Your task to perform on an android device: open the mobile data screen to see how much data has been used Image 0: 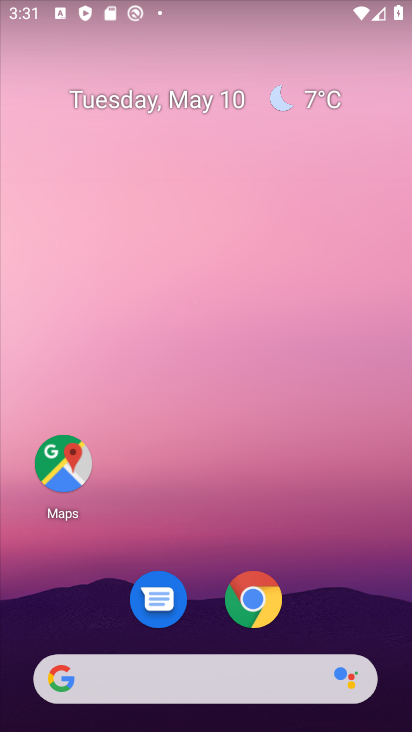
Step 0: drag from (248, 596) to (321, 37)
Your task to perform on an android device: open the mobile data screen to see how much data has been used Image 1: 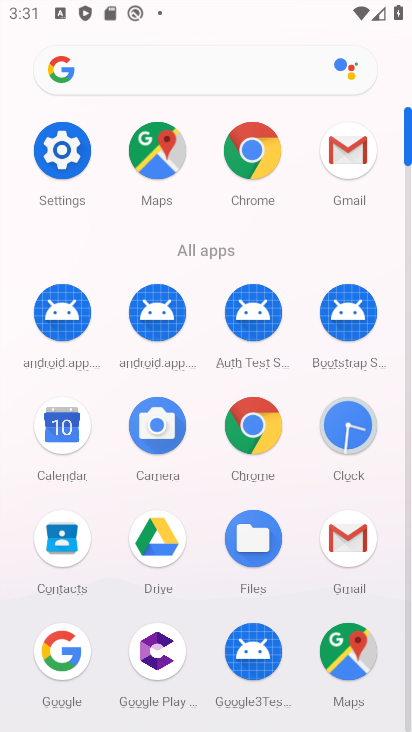
Step 1: click (66, 149)
Your task to perform on an android device: open the mobile data screen to see how much data has been used Image 2: 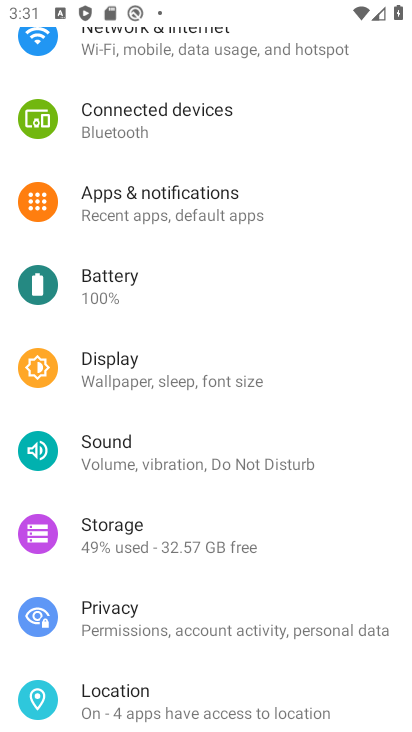
Step 2: drag from (164, 166) to (174, 618)
Your task to perform on an android device: open the mobile data screen to see how much data has been used Image 3: 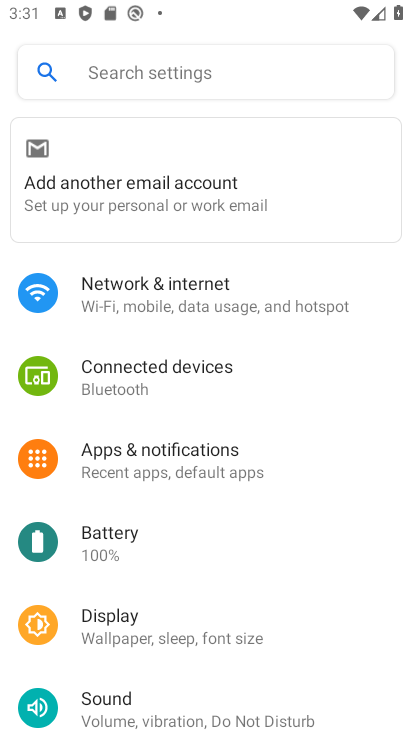
Step 3: click (204, 303)
Your task to perform on an android device: open the mobile data screen to see how much data has been used Image 4: 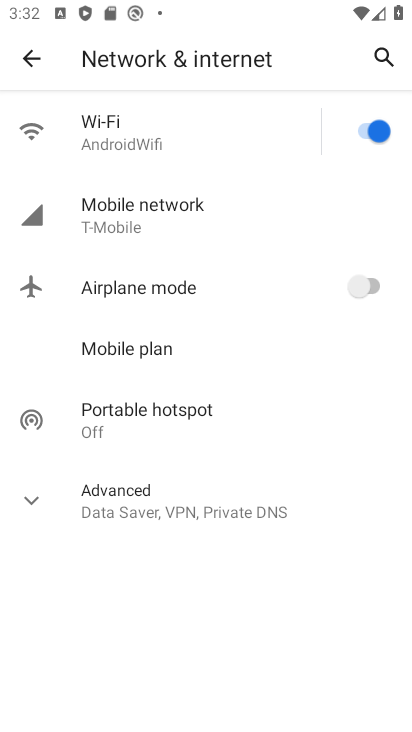
Step 4: click (179, 217)
Your task to perform on an android device: open the mobile data screen to see how much data has been used Image 5: 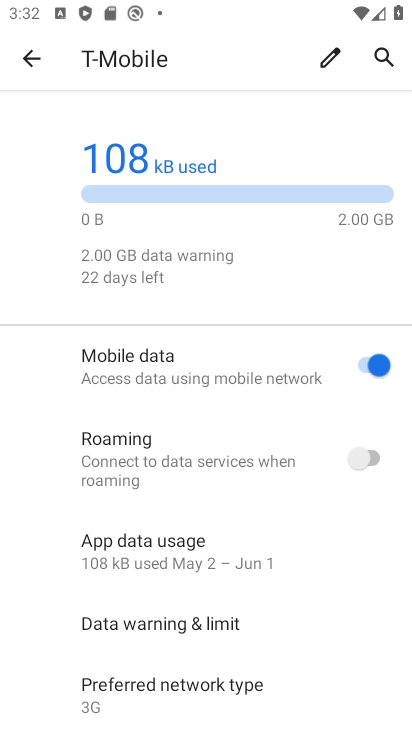
Step 5: task complete